Your task to perform on an android device: Go to Amazon Image 0: 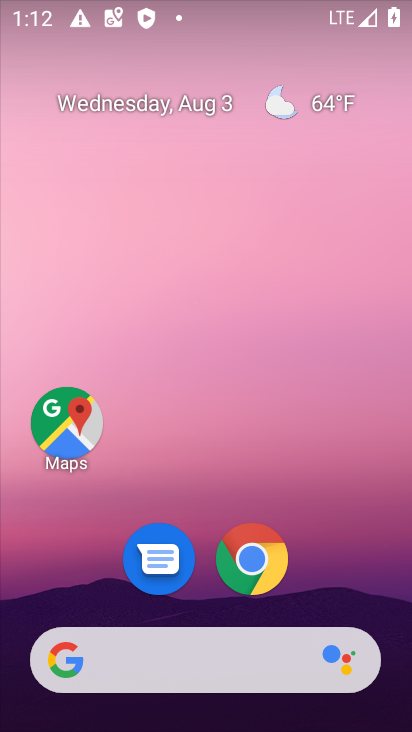
Step 0: click (258, 561)
Your task to perform on an android device: Go to Amazon Image 1: 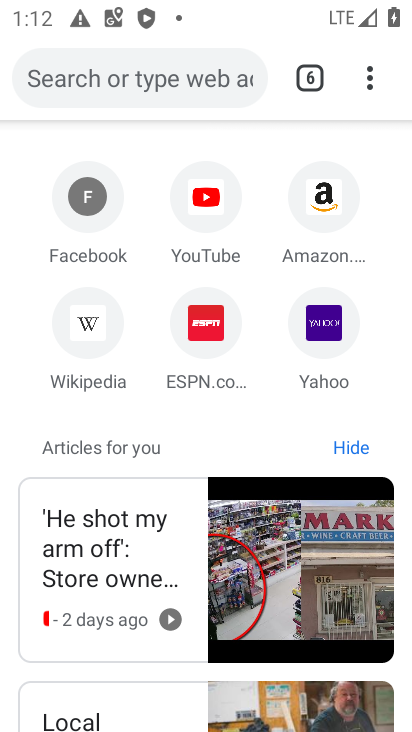
Step 1: click (324, 209)
Your task to perform on an android device: Go to Amazon Image 2: 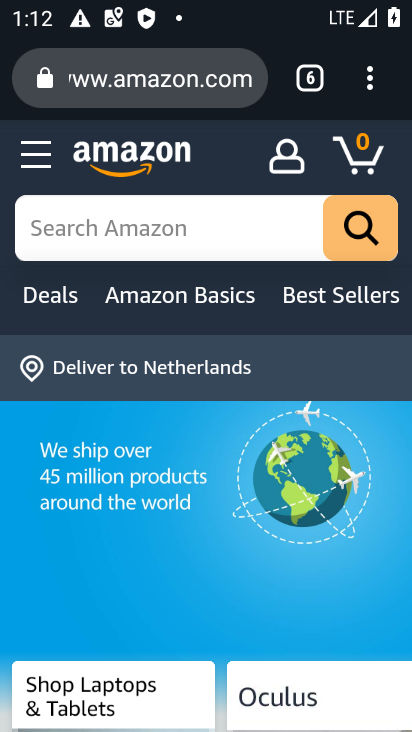
Step 2: task complete